Your task to perform on an android device: star an email in the gmail app Image 0: 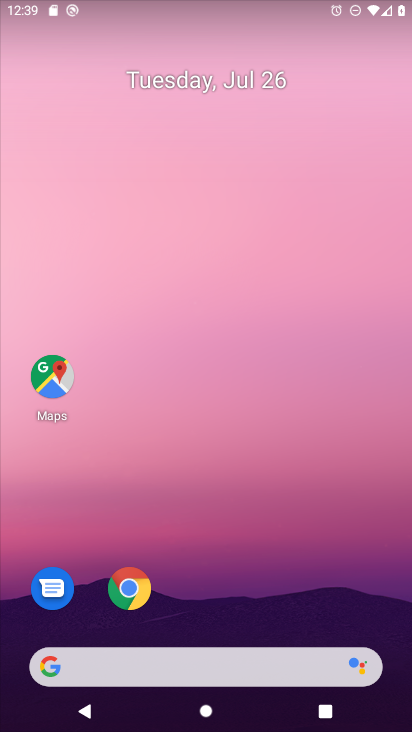
Step 0: drag from (251, 604) to (226, 22)
Your task to perform on an android device: star an email in the gmail app Image 1: 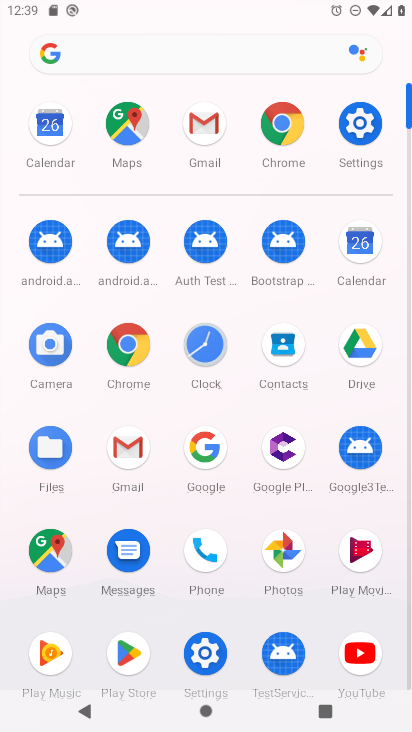
Step 1: click (212, 114)
Your task to perform on an android device: star an email in the gmail app Image 2: 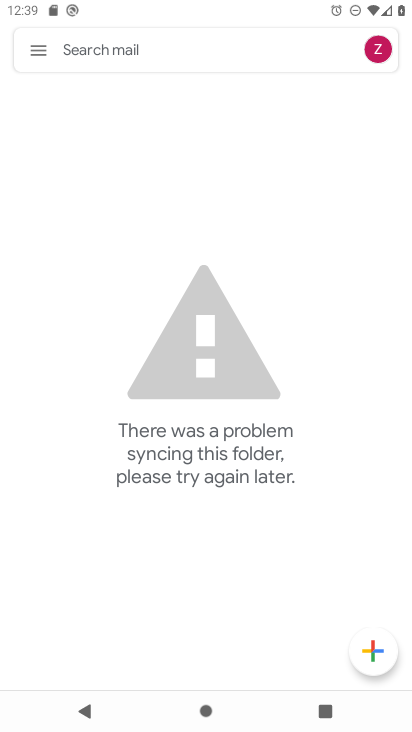
Step 2: click (42, 55)
Your task to perform on an android device: star an email in the gmail app Image 3: 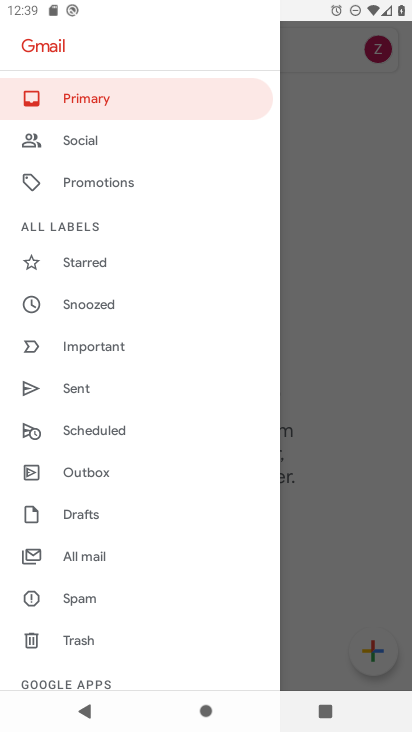
Step 3: click (99, 560)
Your task to perform on an android device: star an email in the gmail app Image 4: 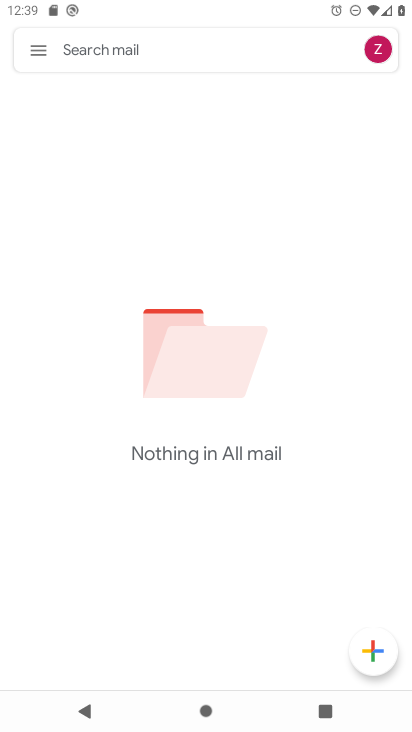
Step 4: task complete